Your task to perform on an android device: turn off location history Image 0: 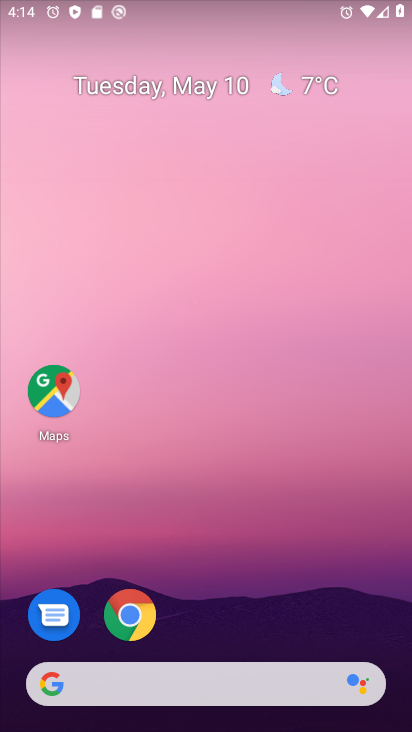
Step 0: drag from (257, 498) to (221, 9)
Your task to perform on an android device: turn off location history Image 1: 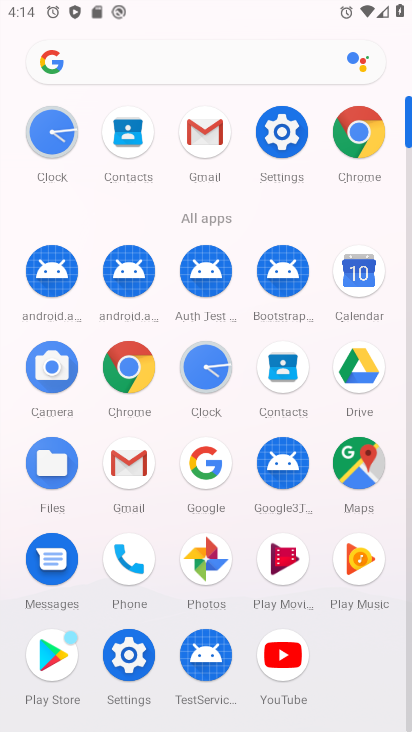
Step 1: click (126, 647)
Your task to perform on an android device: turn off location history Image 2: 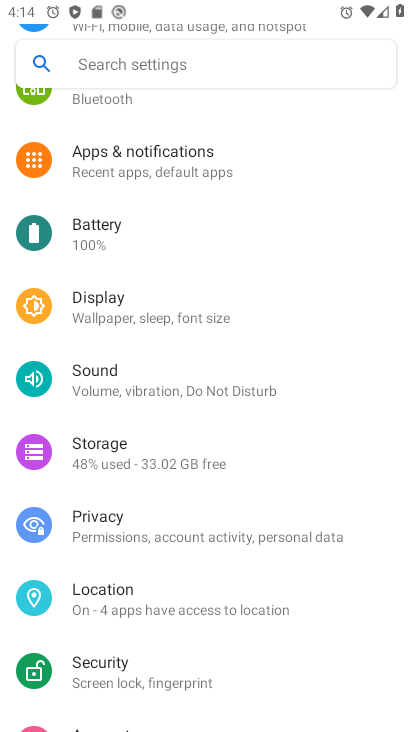
Step 2: click (159, 578)
Your task to perform on an android device: turn off location history Image 3: 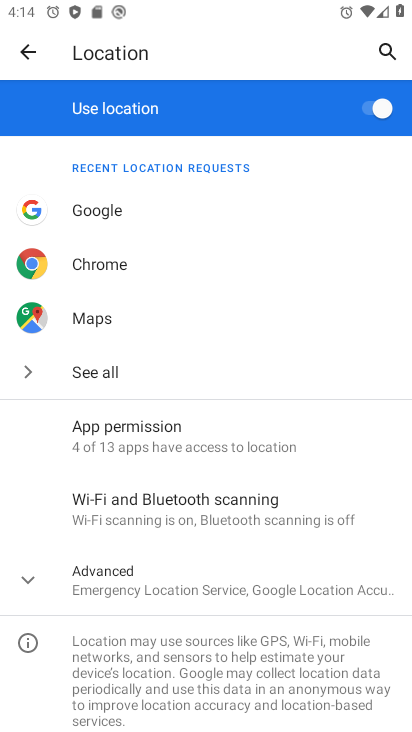
Step 3: click (196, 568)
Your task to perform on an android device: turn off location history Image 4: 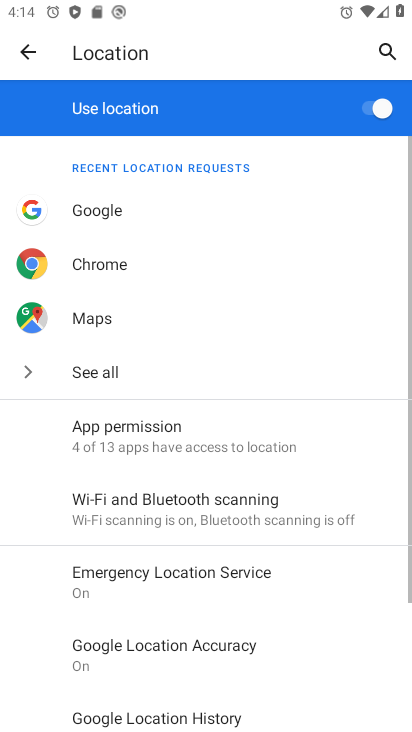
Step 4: drag from (279, 605) to (256, 154)
Your task to perform on an android device: turn off location history Image 5: 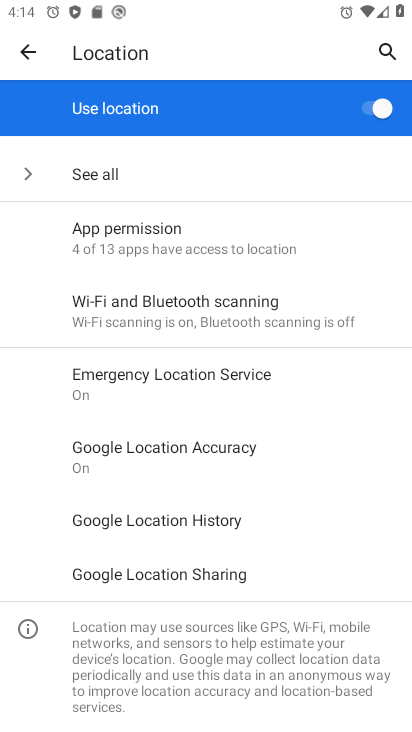
Step 5: click (227, 518)
Your task to perform on an android device: turn off location history Image 6: 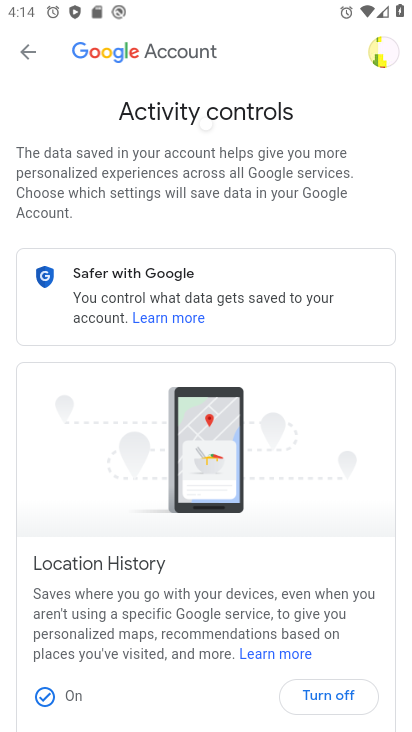
Step 6: drag from (210, 532) to (225, 124)
Your task to perform on an android device: turn off location history Image 7: 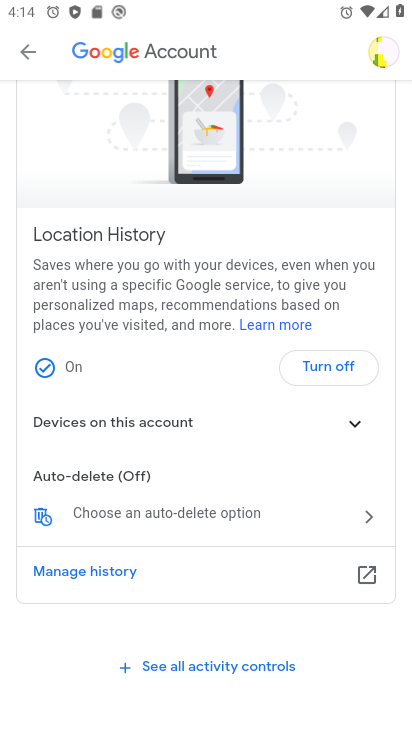
Step 7: click (346, 366)
Your task to perform on an android device: turn off location history Image 8: 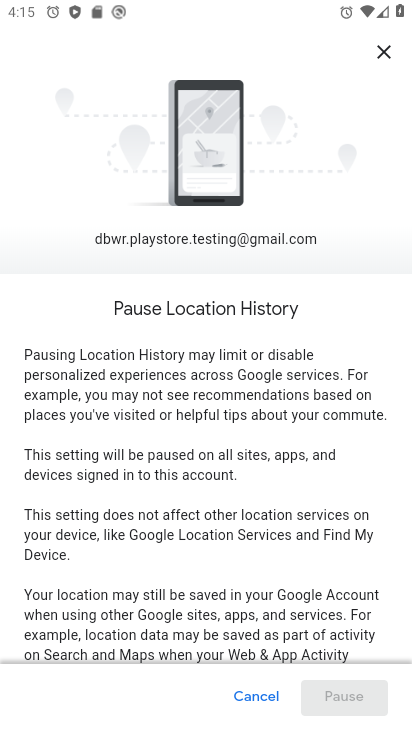
Step 8: drag from (241, 547) to (241, 121)
Your task to perform on an android device: turn off location history Image 9: 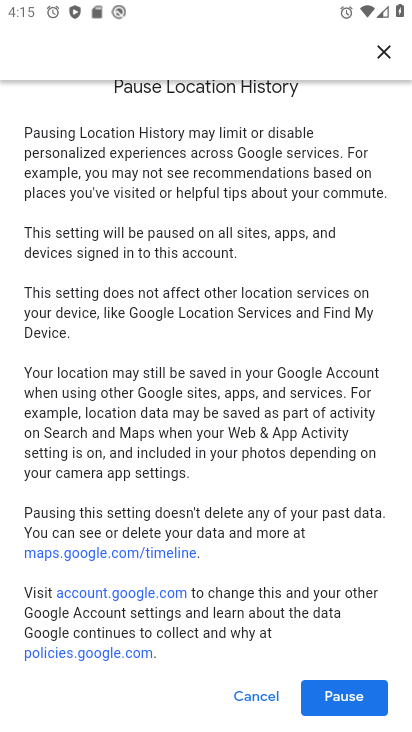
Step 9: click (355, 696)
Your task to perform on an android device: turn off location history Image 10: 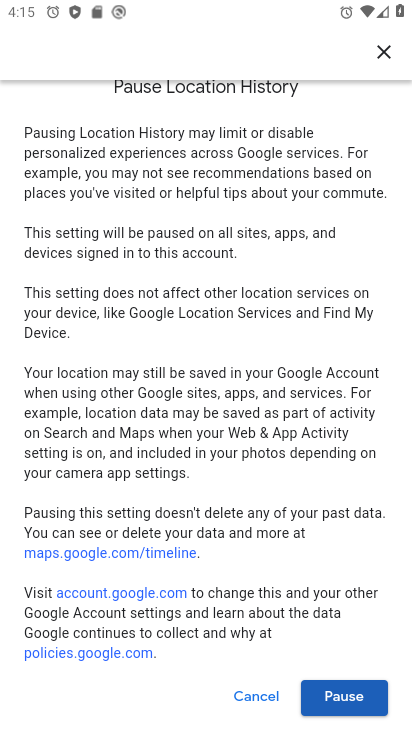
Step 10: click (338, 694)
Your task to perform on an android device: turn off location history Image 11: 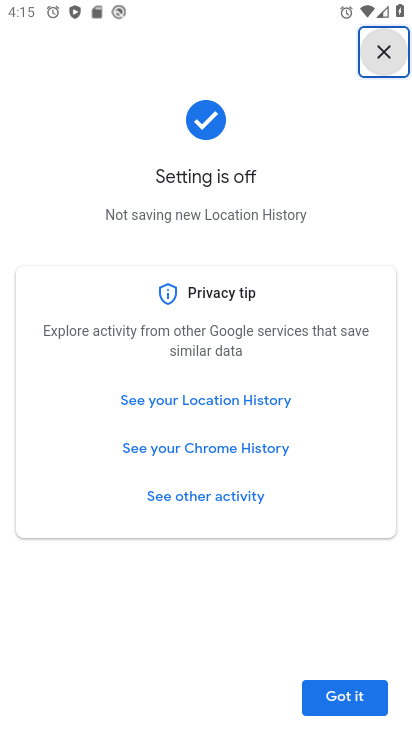
Step 11: task complete